Your task to perform on an android device: Open network settings Image 0: 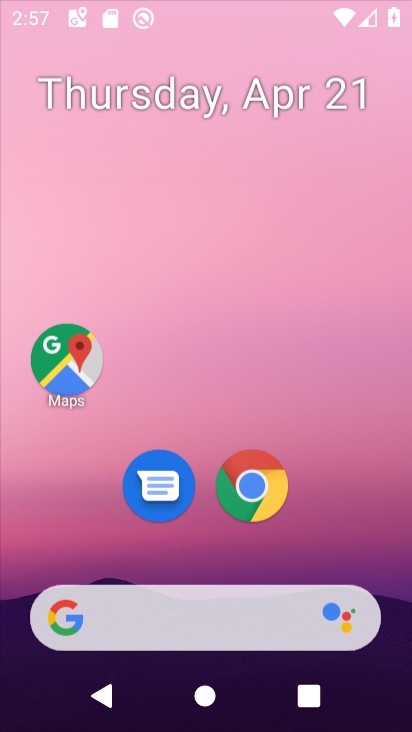
Step 0: press back button
Your task to perform on an android device: Open network settings Image 1: 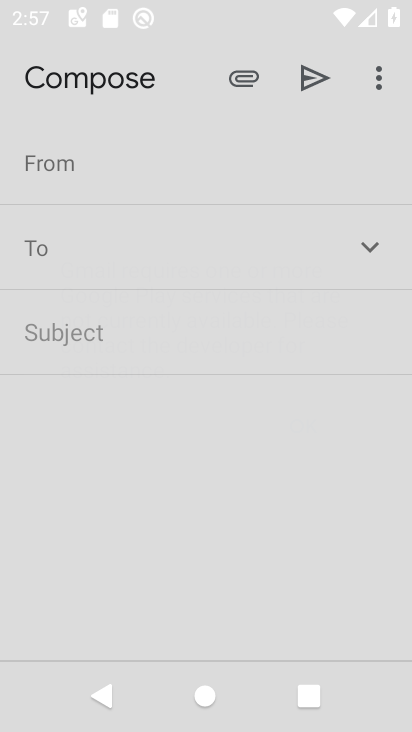
Step 1: drag from (233, 415) to (307, 3)
Your task to perform on an android device: Open network settings Image 2: 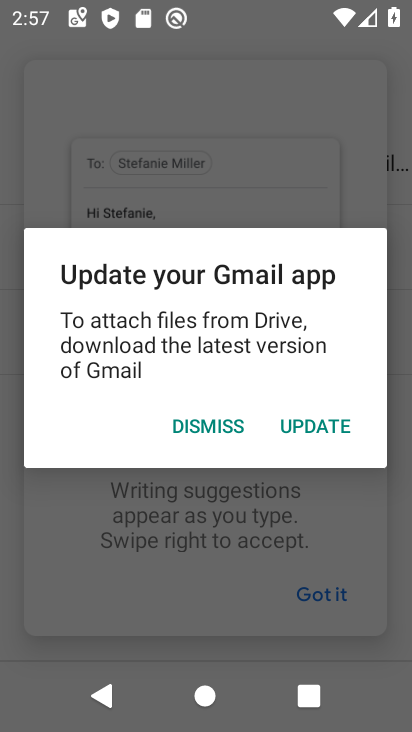
Step 2: press back button
Your task to perform on an android device: Open network settings Image 3: 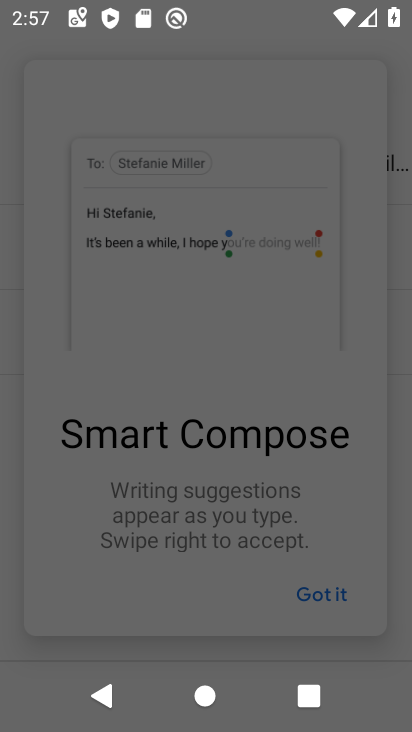
Step 3: press home button
Your task to perform on an android device: Open network settings Image 4: 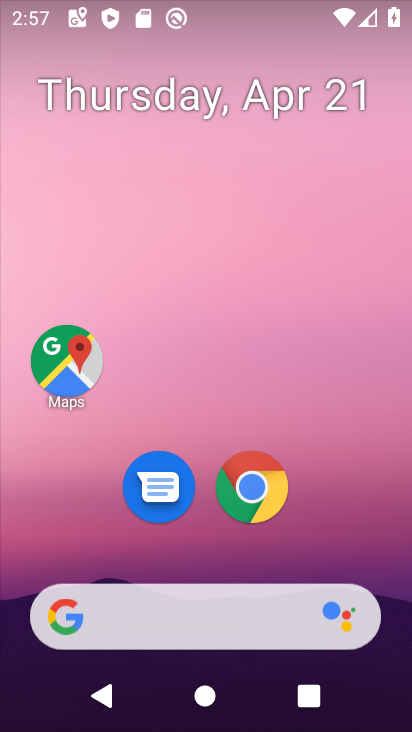
Step 4: drag from (205, 549) to (276, 6)
Your task to perform on an android device: Open network settings Image 5: 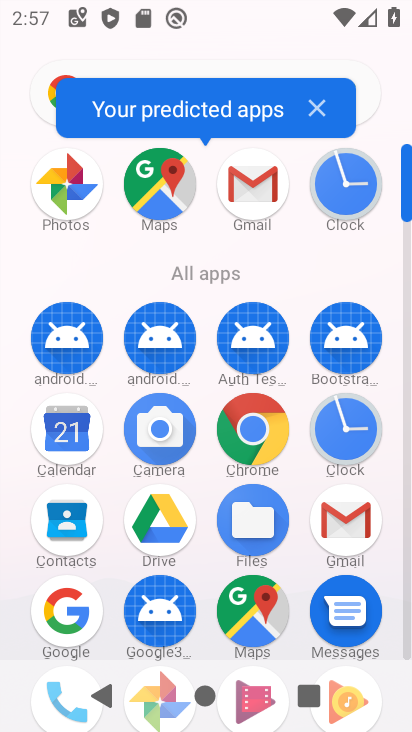
Step 5: drag from (285, 233) to (319, 115)
Your task to perform on an android device: Open network settings Image 6: 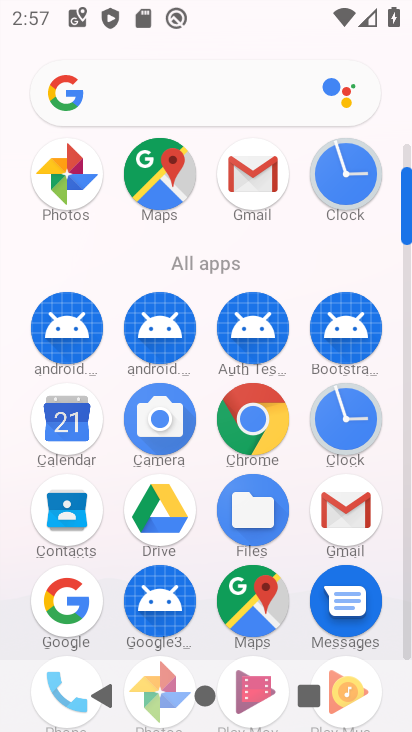
Step 6: drag from (223, 549) to (279, 101)
Your task to perform on an android device: Open network settings Image 7: 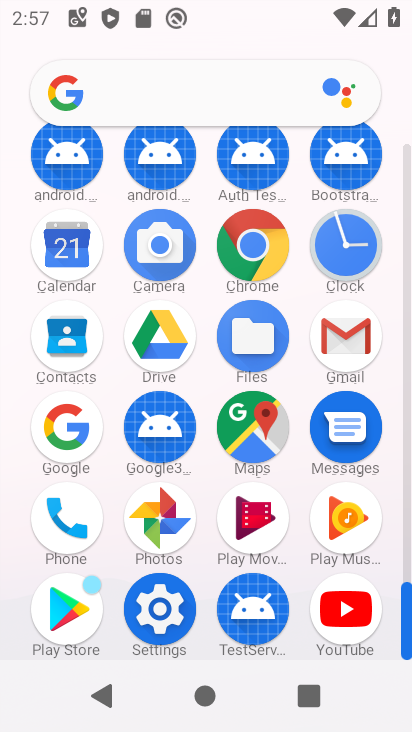
Step 7: click (163, 607)
Your task to perform on an android device: Open network settings Image 8: 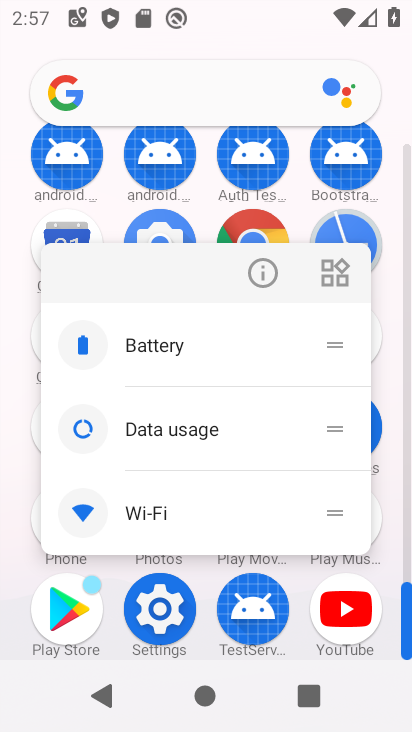
Step 8: click (156, 607)
Your task to perform on an android device: Open network settings Image 9: 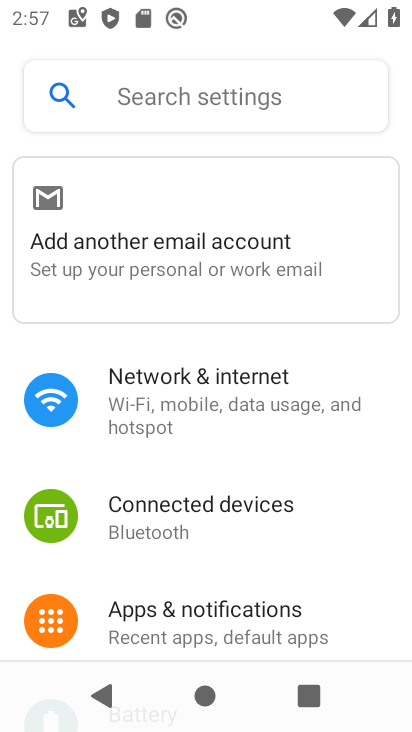
Step 9: click (208, 393)
Your task to perform on an android device: Open network settings Image 10: 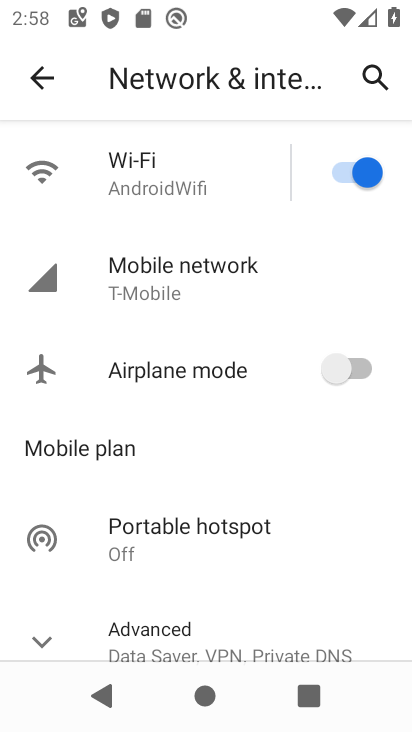
Step 10: task complete